Your task to perform on an android device: change the upload size in google photos Image 0: 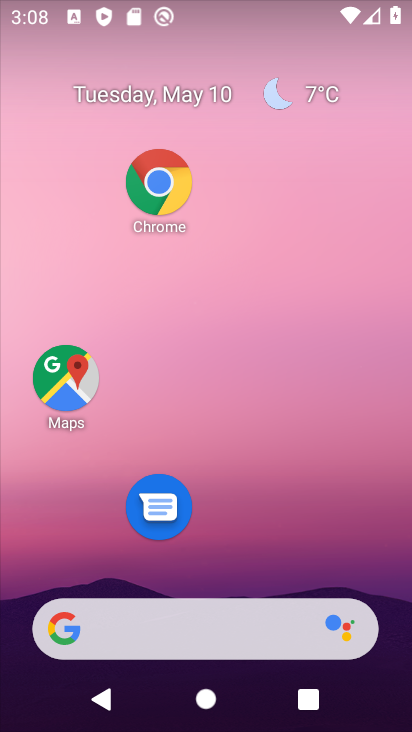
Step 0: drag from (298, 477) to (232, 91)
Your task to perform on an android device: change the upload size in google photos Image 1: 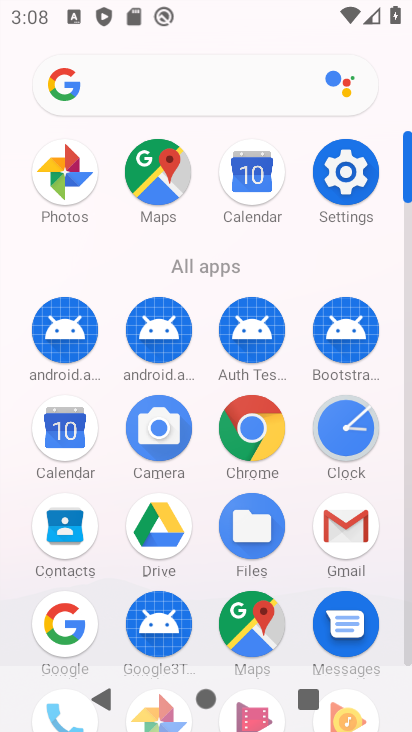
Step 1: click (407, 649)
Your task to perform on an android device: change the upload size in google photos Image 2: 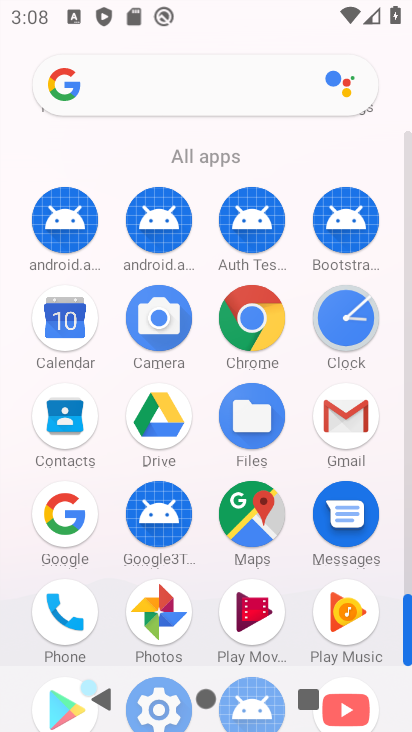
Step 2: click (169, 620)
Your task to perform on an android device: change the upload size in google photos Image 3: 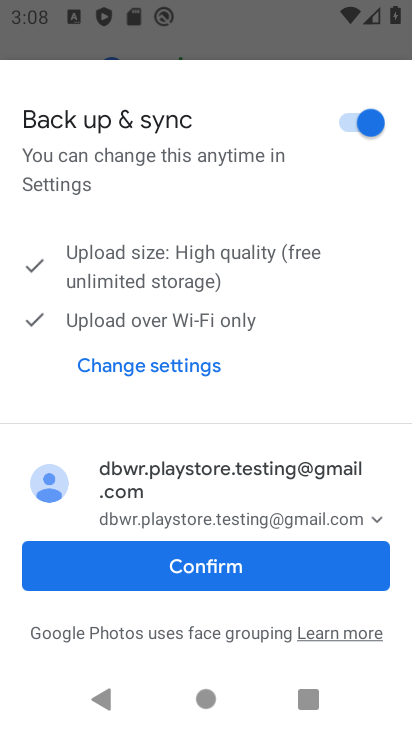
Step 3: click (198, 577)
Your task to perform on an android device: change the upload size in google photos Image 4: 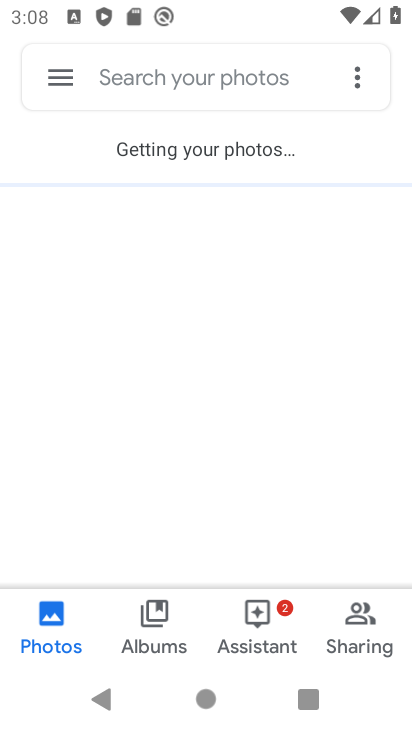
Step 4: click (56, 83)
Your task to perform on an android device: change the upload size in google photos Image 5: 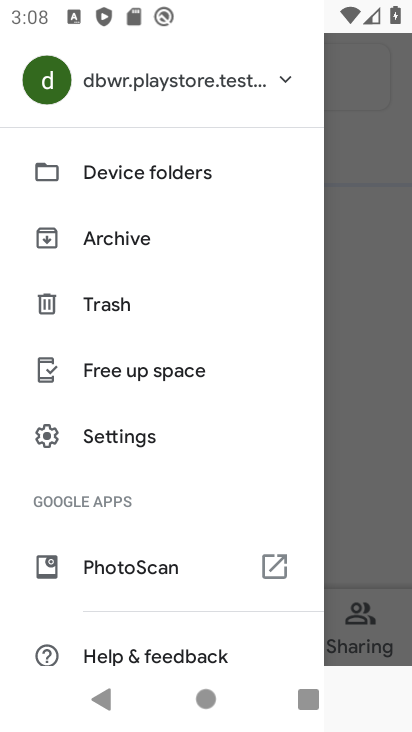
Step 5: click (133, 422)
Your task to perform on an android device: change the upload size in google photos Image 6: 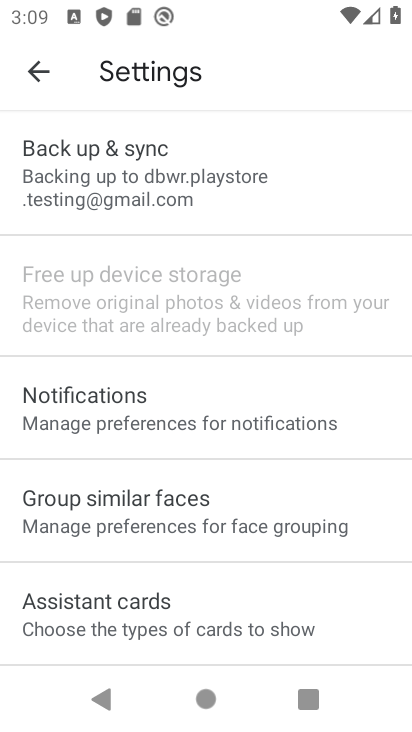
Step 6: click (116, 189)
Your task to perform on an android device: change the upload size in google photos Image 7: 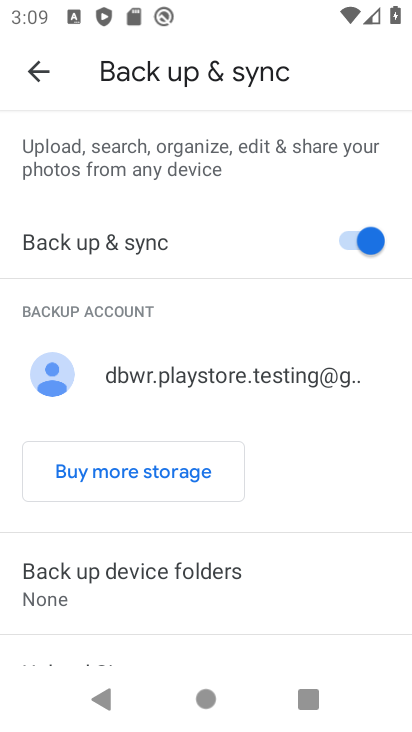
Step 7: drag from (212, 602) to (175, 387)
Your task to perform on an android device: change the upload size in google photos Image 8: 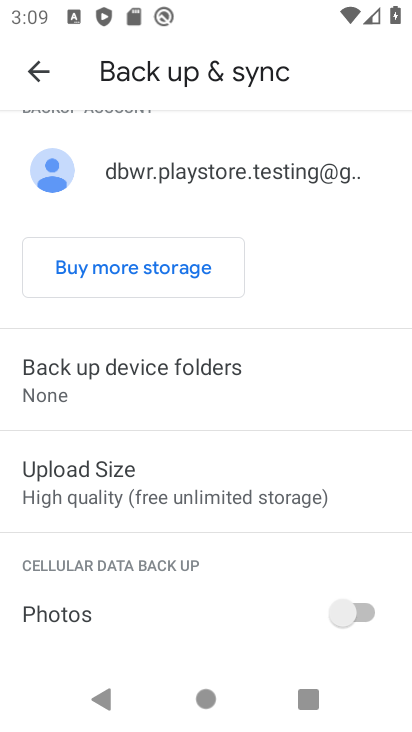
Step 8: click (189, 506)
Your task to perform on an android device: change the upload size in google photos Image 9: 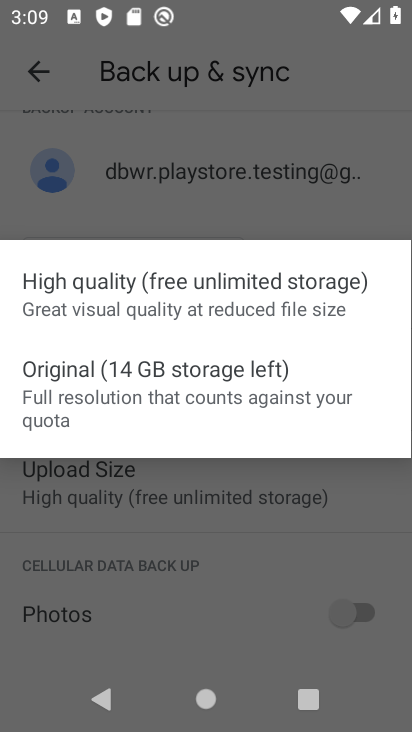
Step 9: click (120, 311)
Your task to perform on an android device: change the upload size in google photos Image 10: 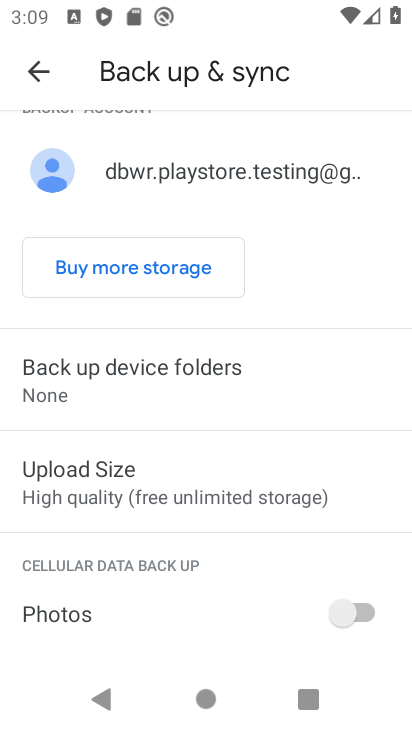
Step 10: task complete